Your task to perform on an android device: move an email to a new category in the gmail app Image 0: 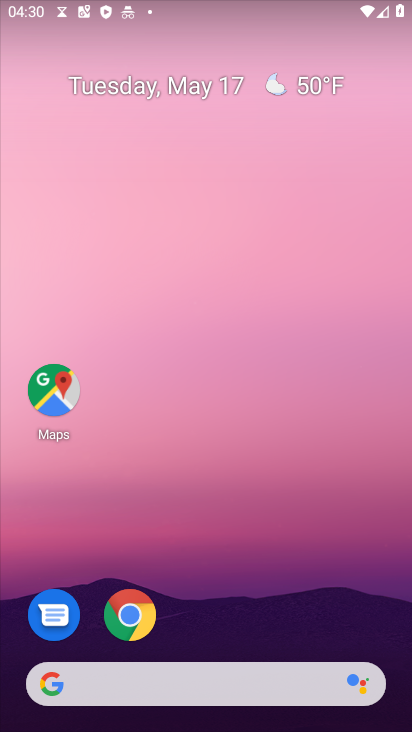
Step 0: drag from (234, 661) to (234, 234)
Your task to perform on an android device: move an email to a new category in the gmail app Image 1: 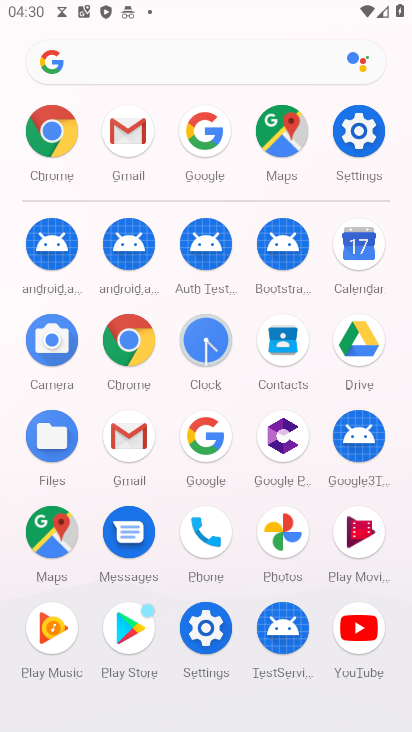
Step 1: click (120, 448)
Your task to perform on an android device: move an email to a new category in the gmail app Image 2: 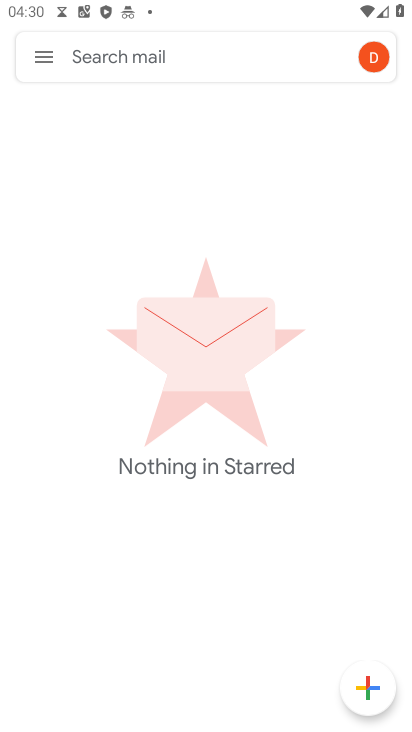
Step 2: click (32, 57)
Your task to perform on an android device: move an email to a new category in the gmail app Image 3: 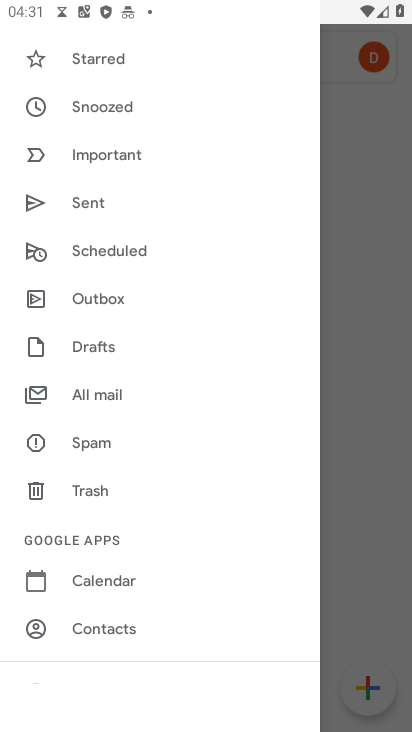
Step 3: click (355, 367)
Your task to perform on an android device: move an email to a new category in the gmail app Image 4: 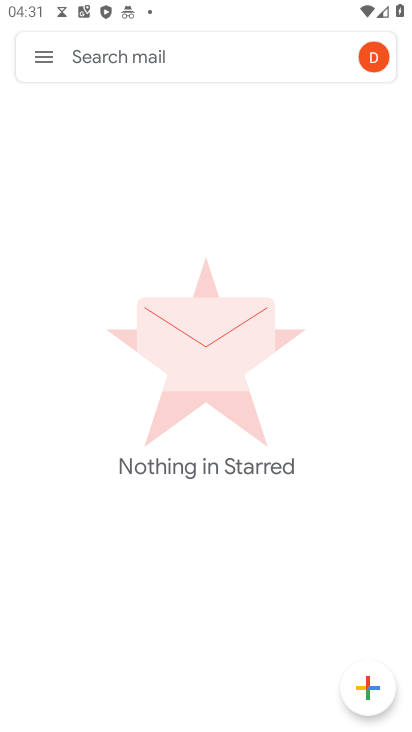
Step 4: click (42, 62)
Your task to perform on an android device: move an email to a new category in the gmail app Image 5: 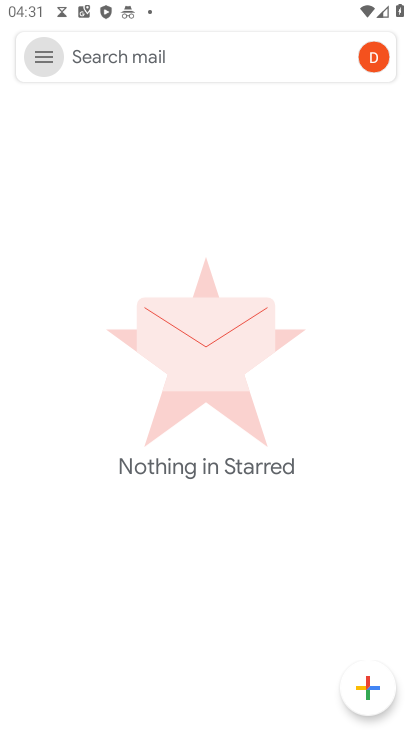
Step 5: click (43, 63)
Your task to perform on an android device: move an email to a new category in the gmail app Image 6: 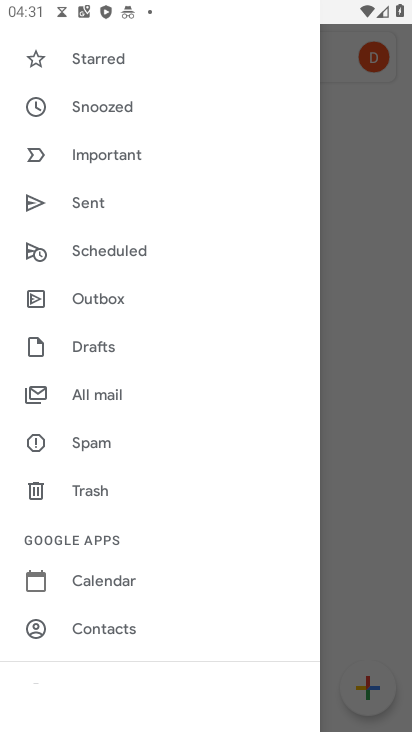
Step 6: click (104, 385)
Your task to perform on an android device: move an email to a new category in the gmail app Image 7: 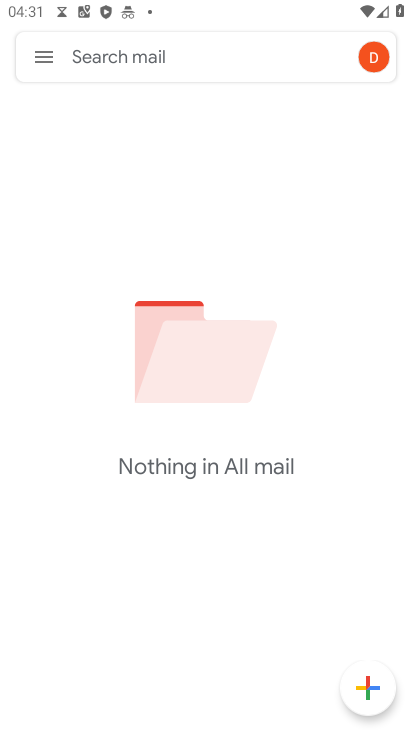
Step 7: task complete